Your task to perform on an android device: Go to network settings Image 0: 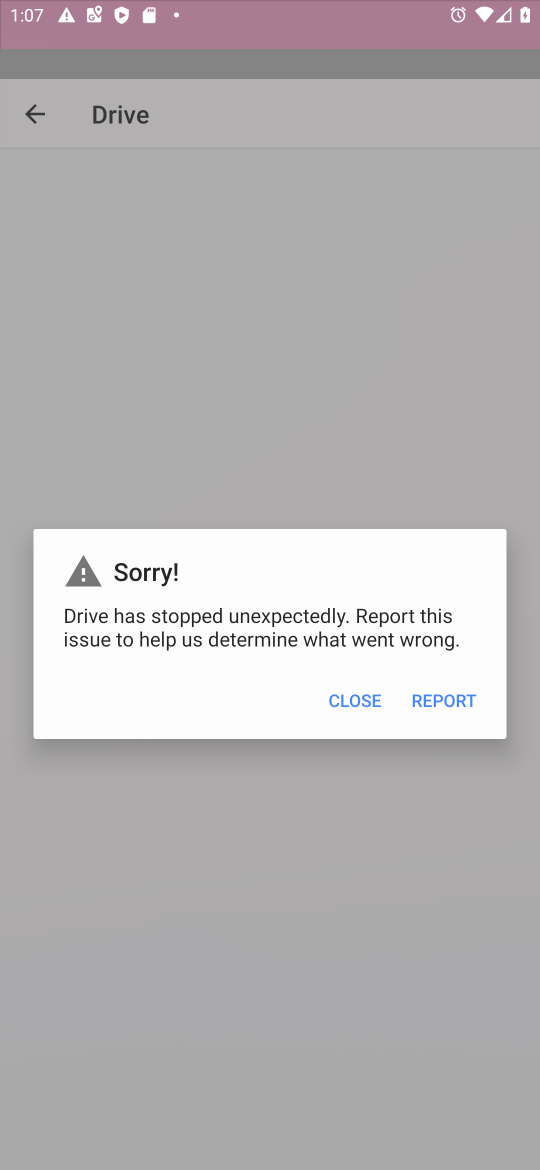
Step 0: press home button
Your task to perform on an android device: Go to network settings Image 1: 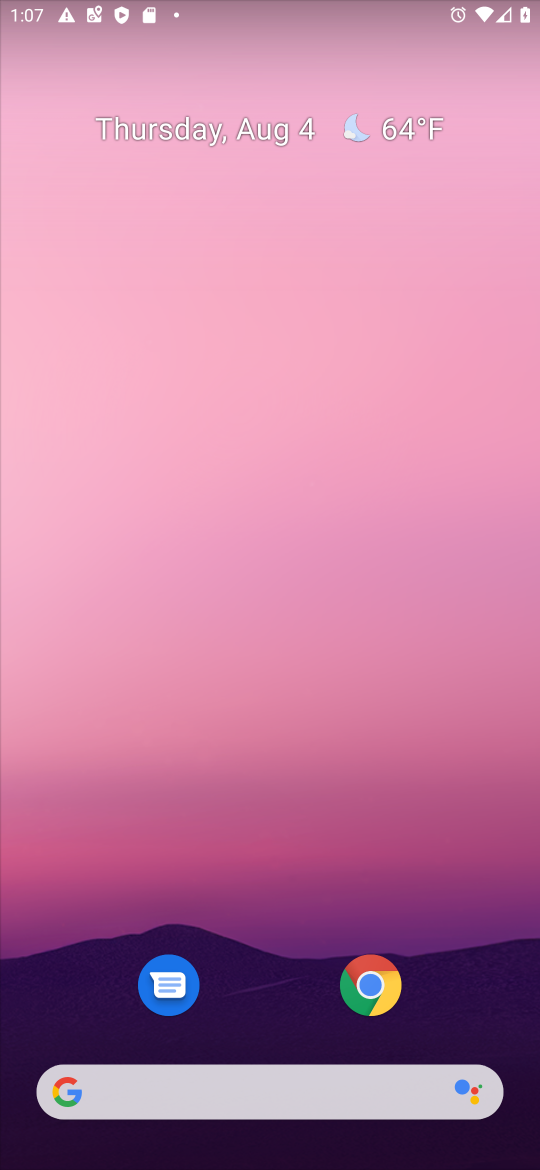
Step 1: drag from (272, 919) to (316, 82)
Your task to perform on an android device: Go to network settings Image 2: 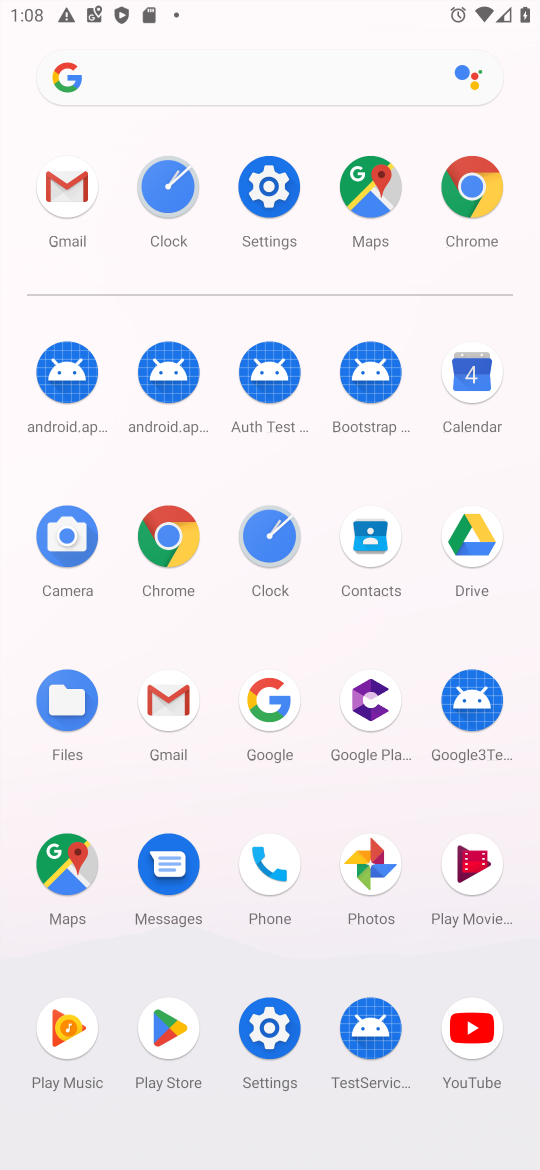
Step 2: click (266, 195)
Your task to perform on an android device: Go to network settings Image 3: 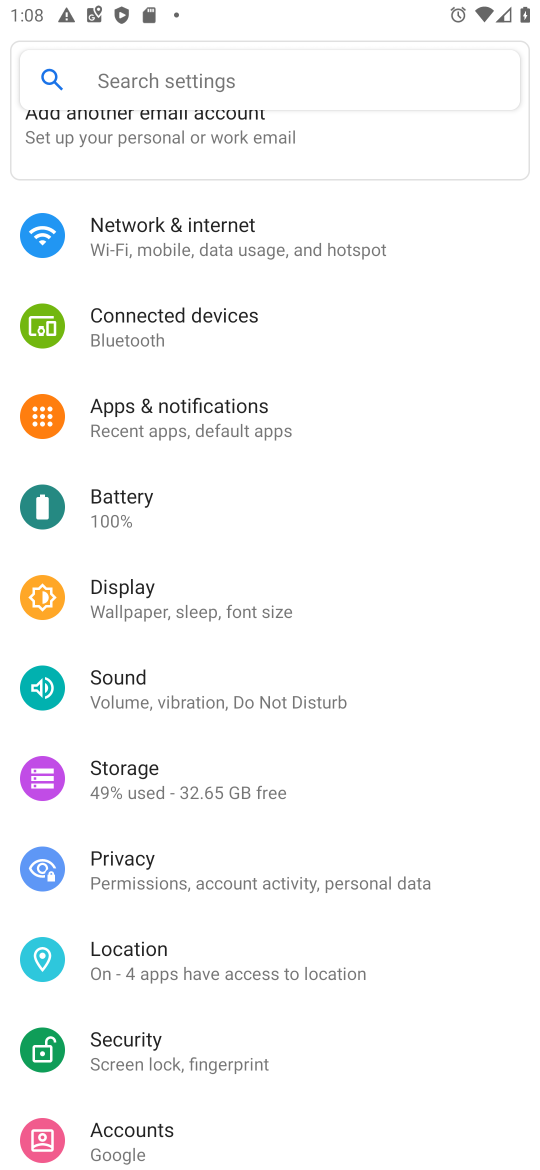
Step 3: click (185, 221)
Your task to perform on an android device: Go to network settings Image 4: 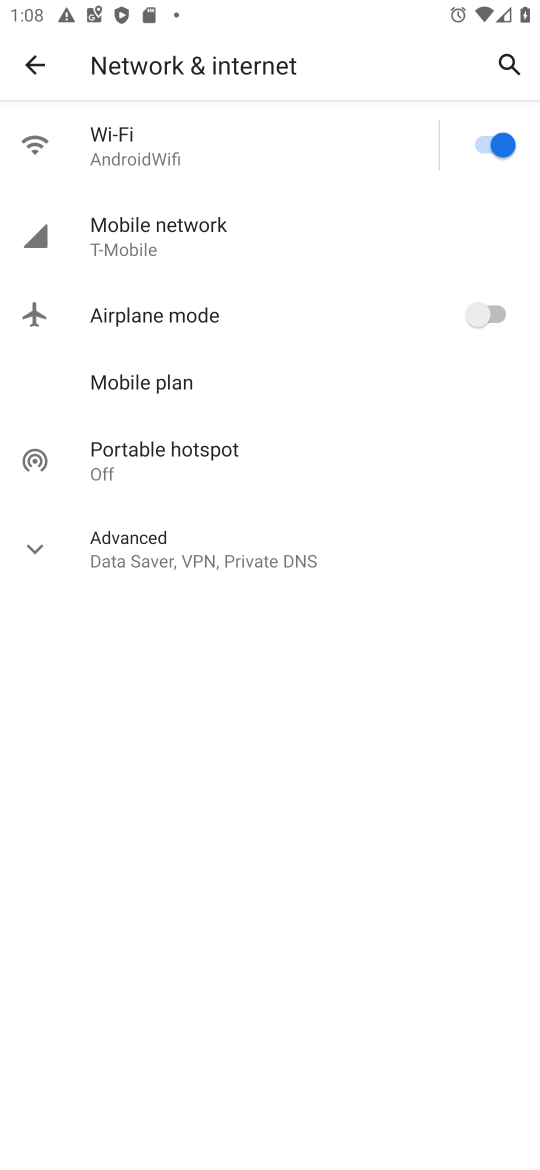
Step 4: task complete